Your task to perform on an android device: Open Google Image 0: 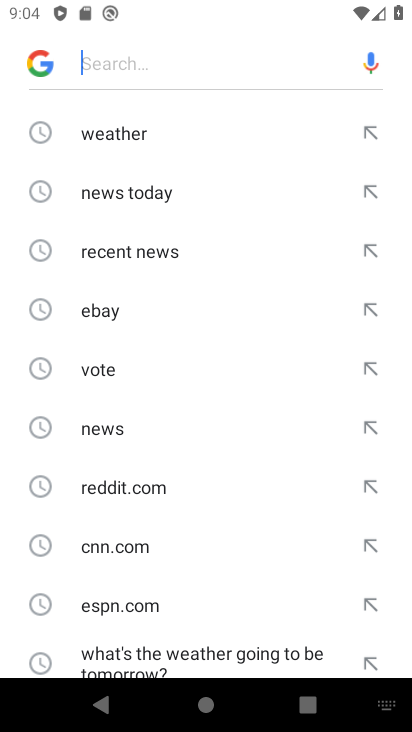
Step 0: click (101, 699)
Your task to perform on an android device: Open Google Image 1: 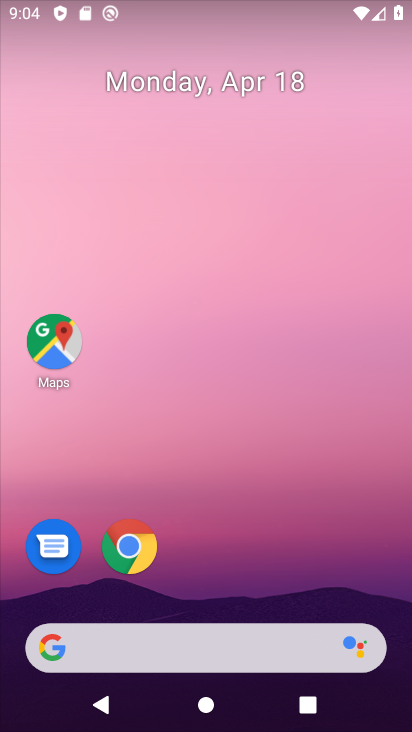
Step 1: drag from (255, 558) to (284, 4)
Your task to perform on an android device: Open Google Image 2: 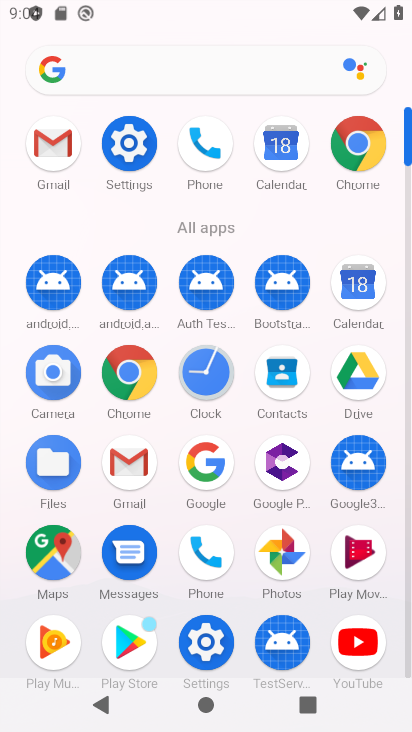
Step 2: click (202, 503)
Your task to perform on an android device: Open Google Image 3: 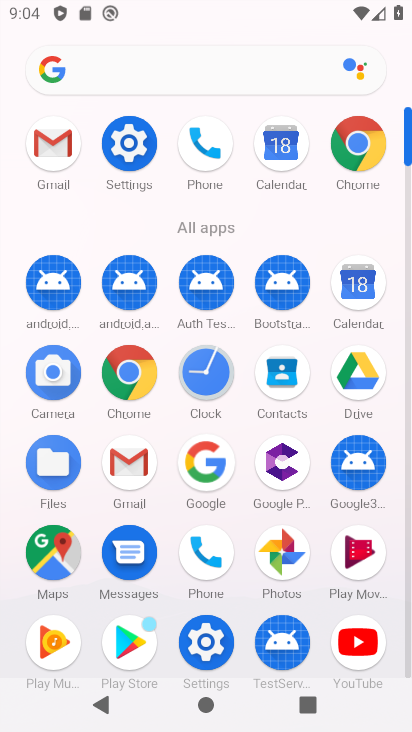
Step 3: click (204, 469)
Your task to perform on an android device: Open Google Image 4: 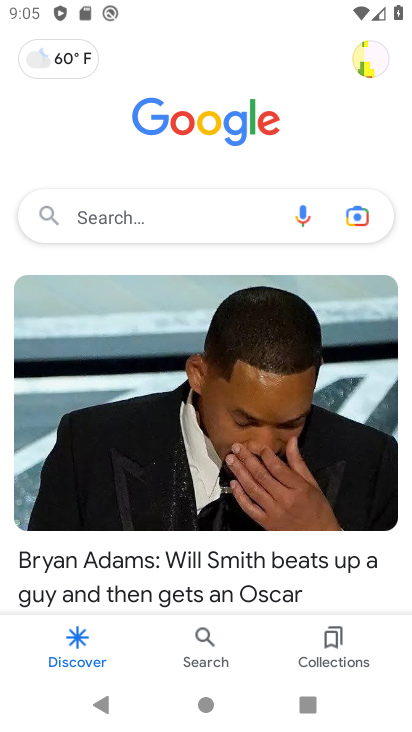
Step 4: task complete